Your task to perform on an android device: turn off airplane mode Image 0: 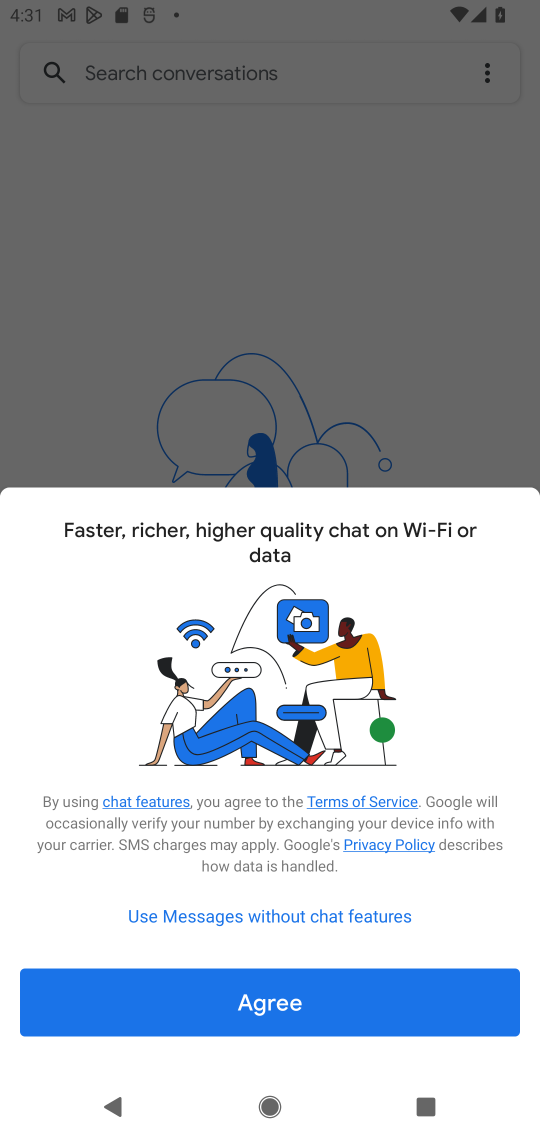
Step 0: press home button
Your task to perform on an android device: turn off airplane mode Image 1: 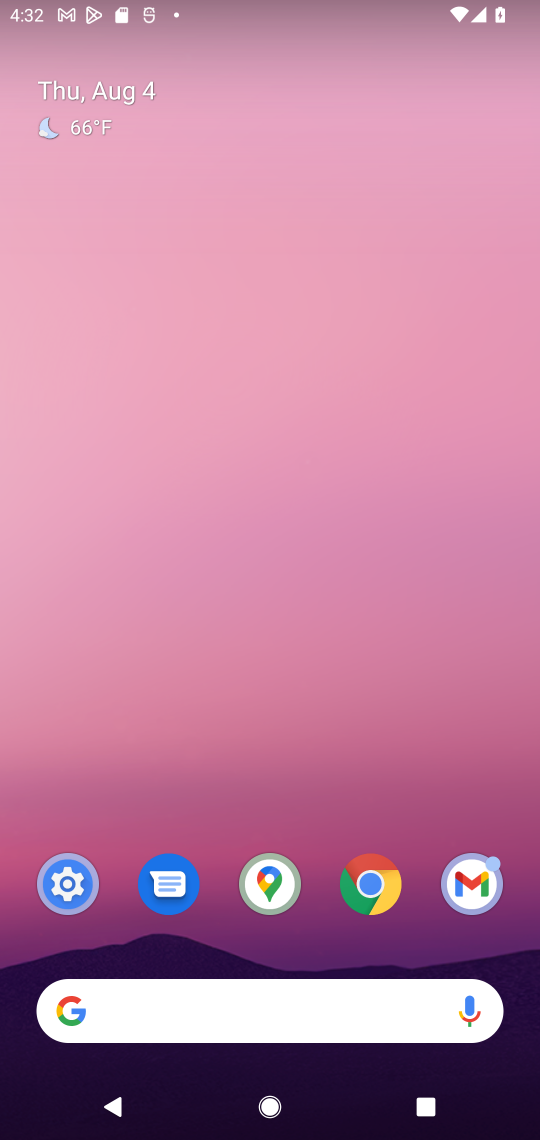
Step 1: drag from (332, 959) to (322, 124)
Your task to perform on an android device: turn off airplane mode Image 2: 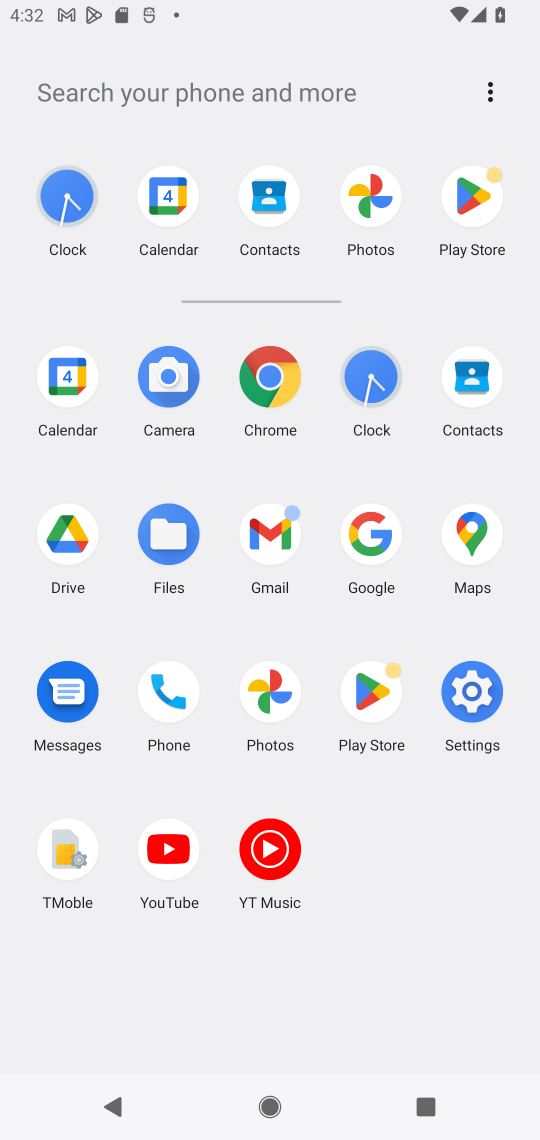
Step 2: click (488, 724)
Your task to perform on an android device: turn off airplane mode Image 3: 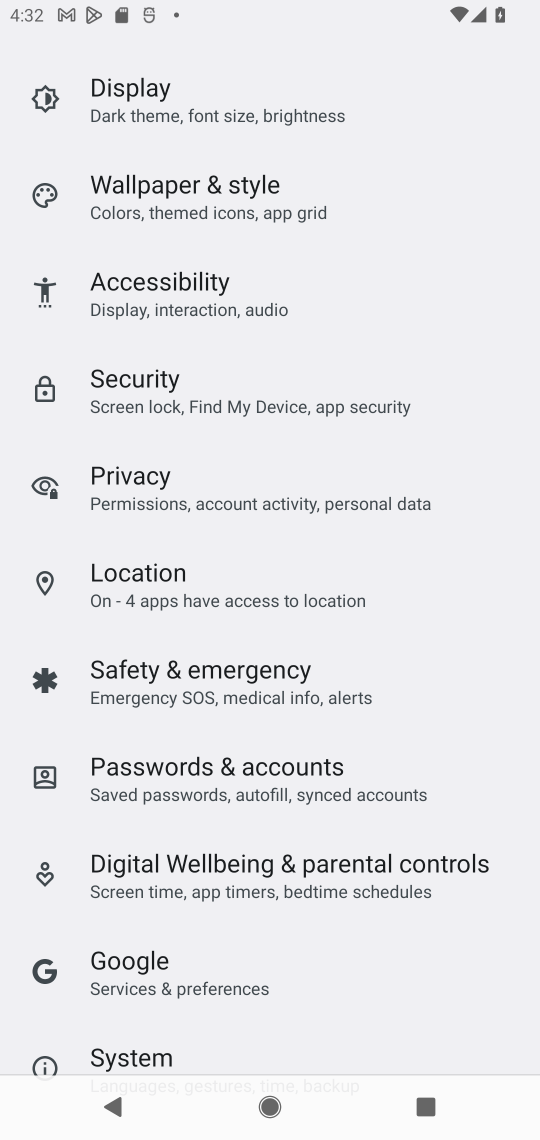
Step 3: drag from (256, 246) to (282, 579)
Your task to perform on an android device: turn off airplane mode Image 4: 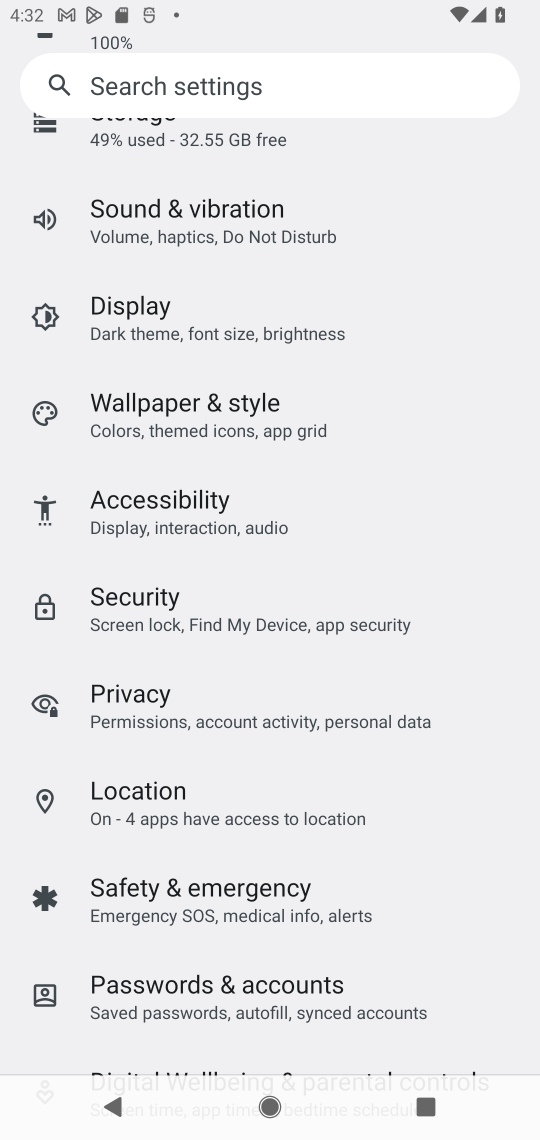
Step 4: drag from (338, 339) to (355, 781)
Your task to perform on an android device: turn off airplane mode Image 5: 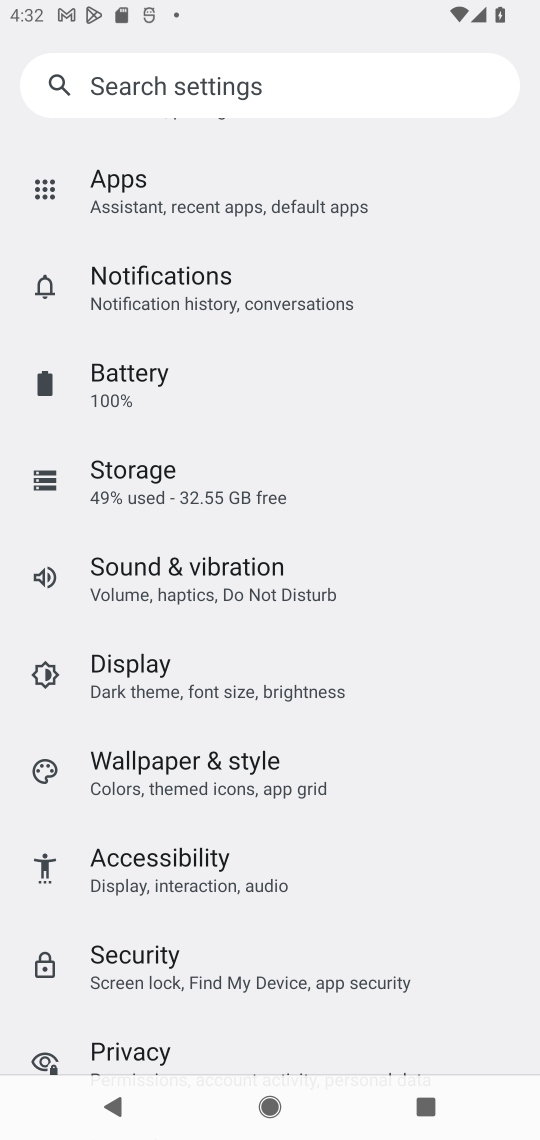
Step 5: drag from (349, 232) to (338, 799)
Your task to perform on an android device: turn off airplane mode Image 6: 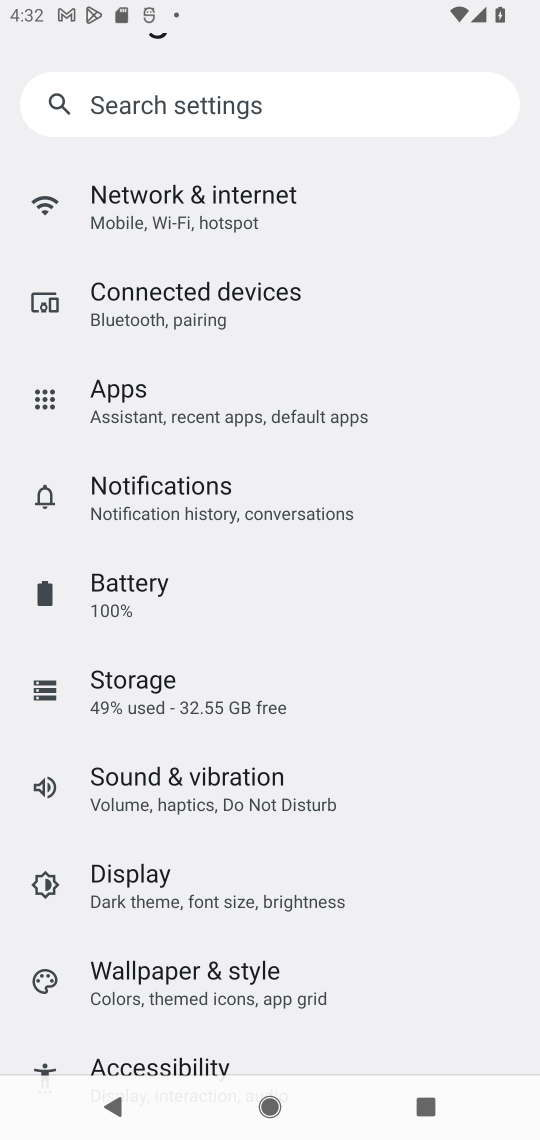
Step 6: click (284, 197)
Your task to perform on an android device: turn off airplane mode Image 7: 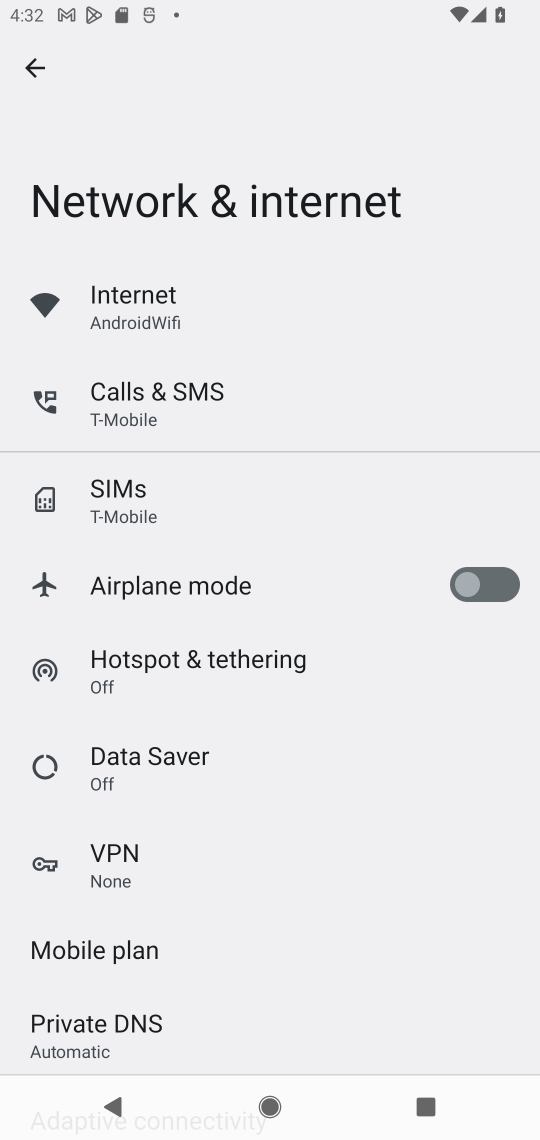
Step 7: task complete